Your task to perform on an android device: Go to display settings Image 0: 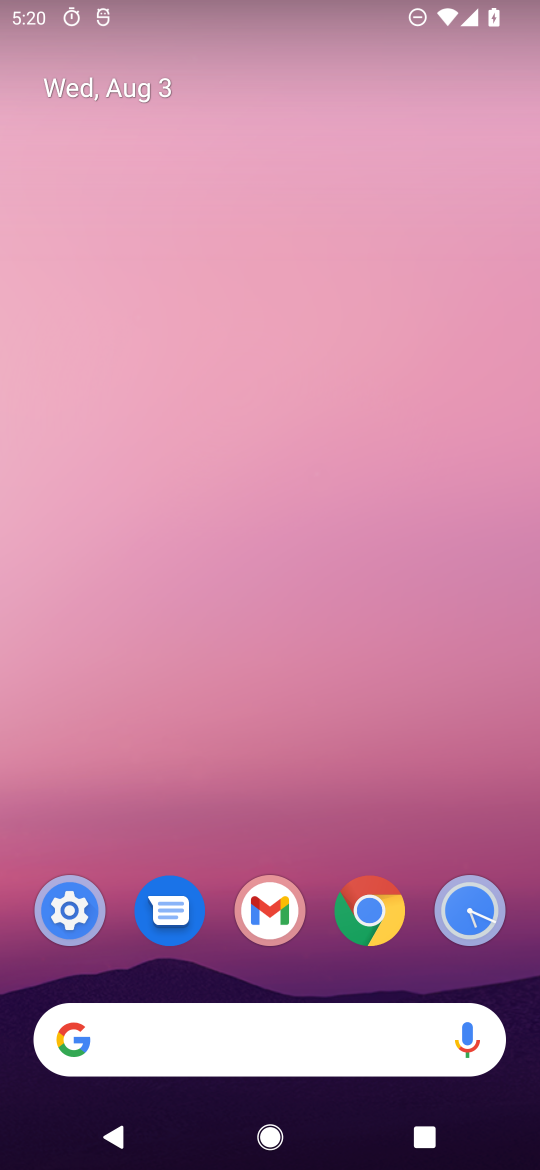
Step 0: click (64, 882)
Your task to perform on an android device: Go to display settings Image 1: 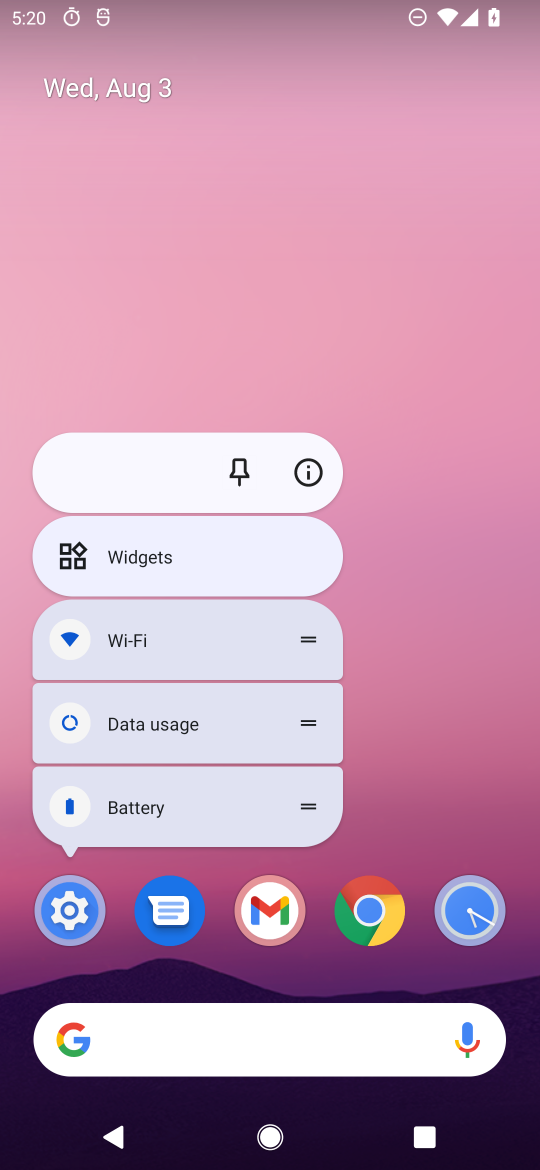
Step 1: click (62, 916)
Your task to perform on an android device: Go to display settings Image 2: 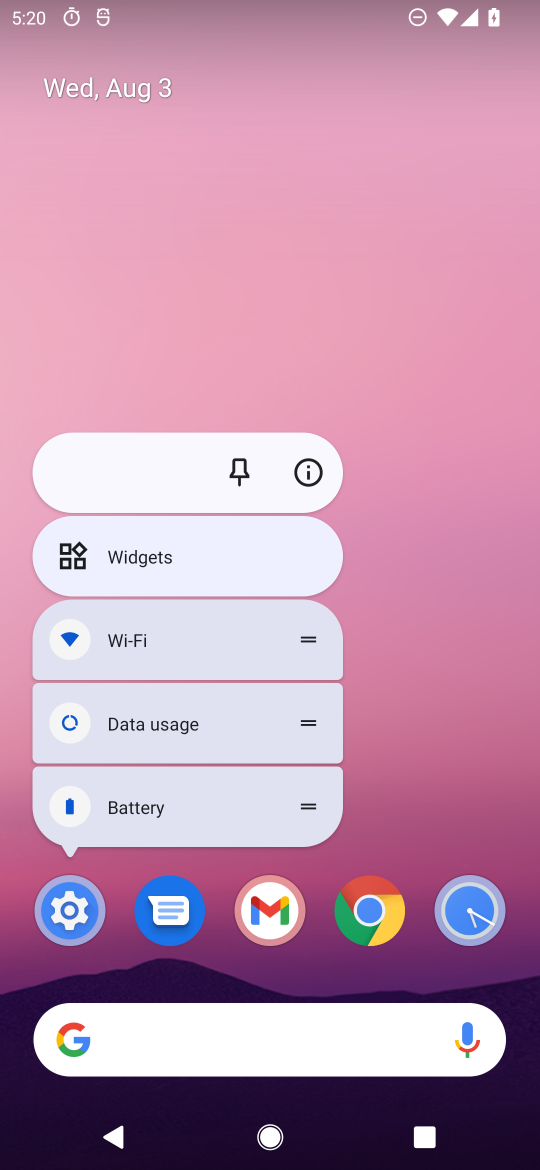
Step 2: click (75, 936)
Your task to perform on an android device: Go to display settings Image 3: 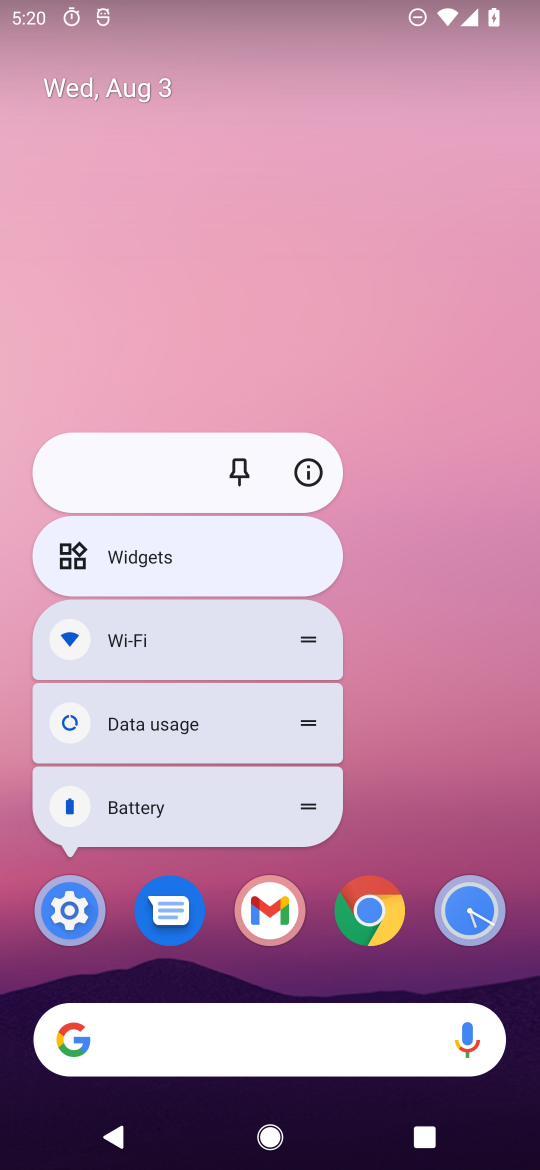
Step 3: click (53, 914)
Your task to perform on an android device: Go to display settings Image 4: 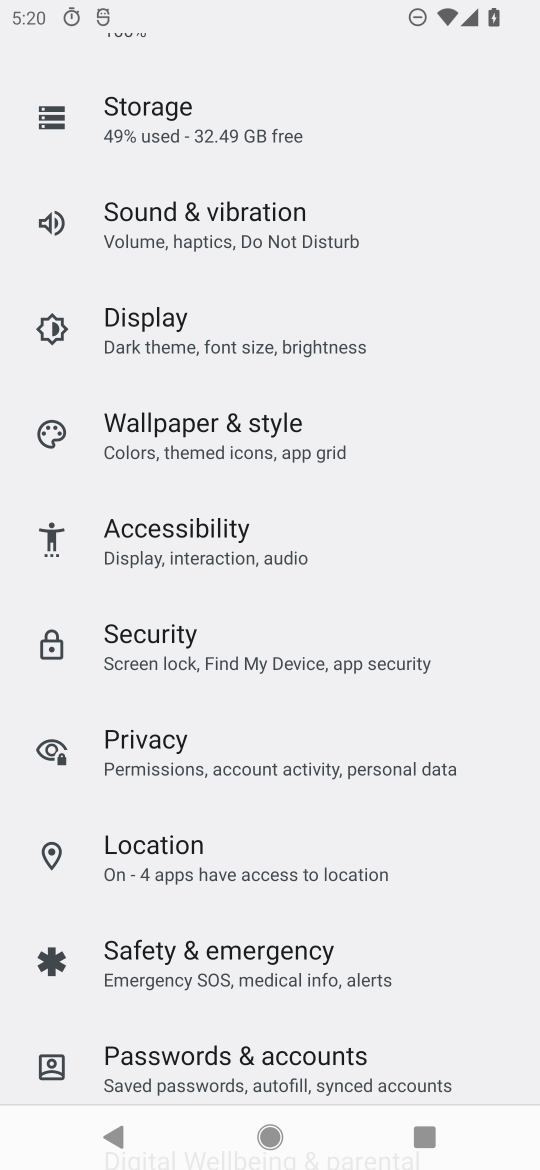
Step 4: click (166, 334)
Your task to perform on an android device: Go to display settings Image 5: 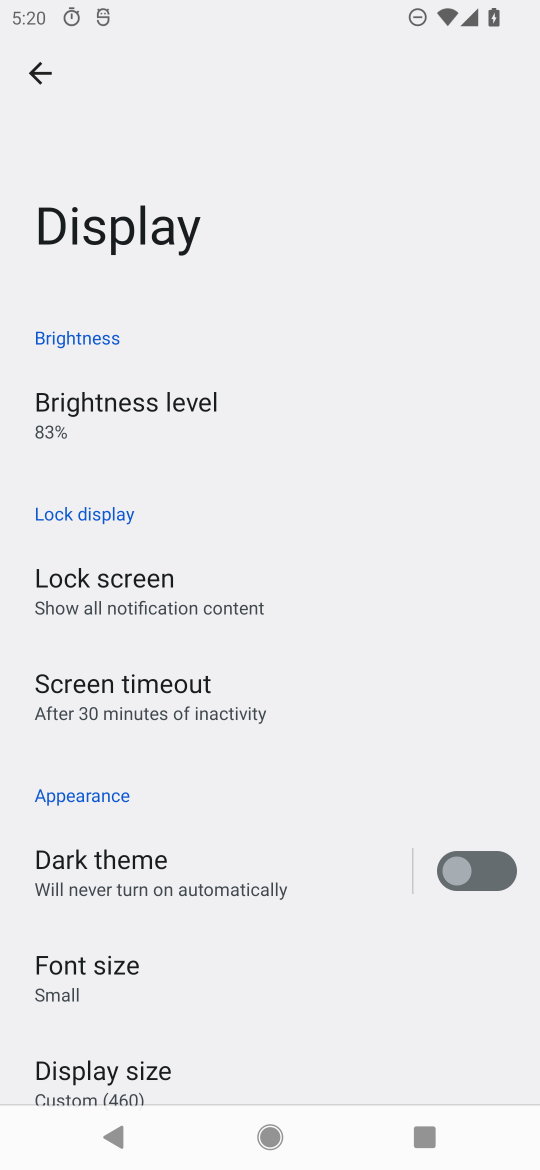
Step 5: task complete